Your task to perform on an android device: uninstall "LinkedIn" Image 0: 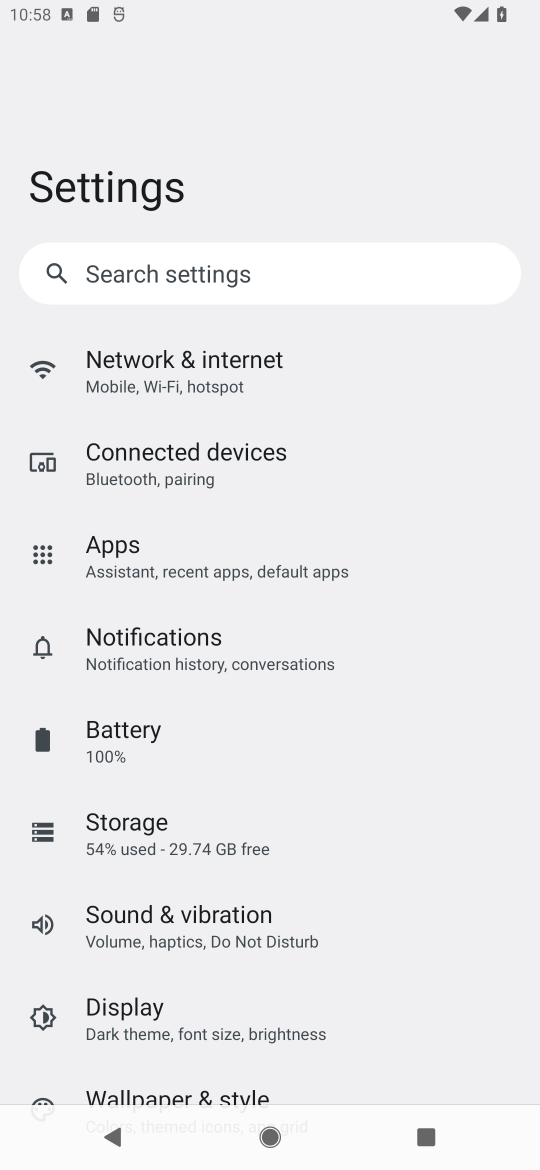
Step 0: press home button
Your task to perform on an android device: uninstall "LinkedIn" Image 1: 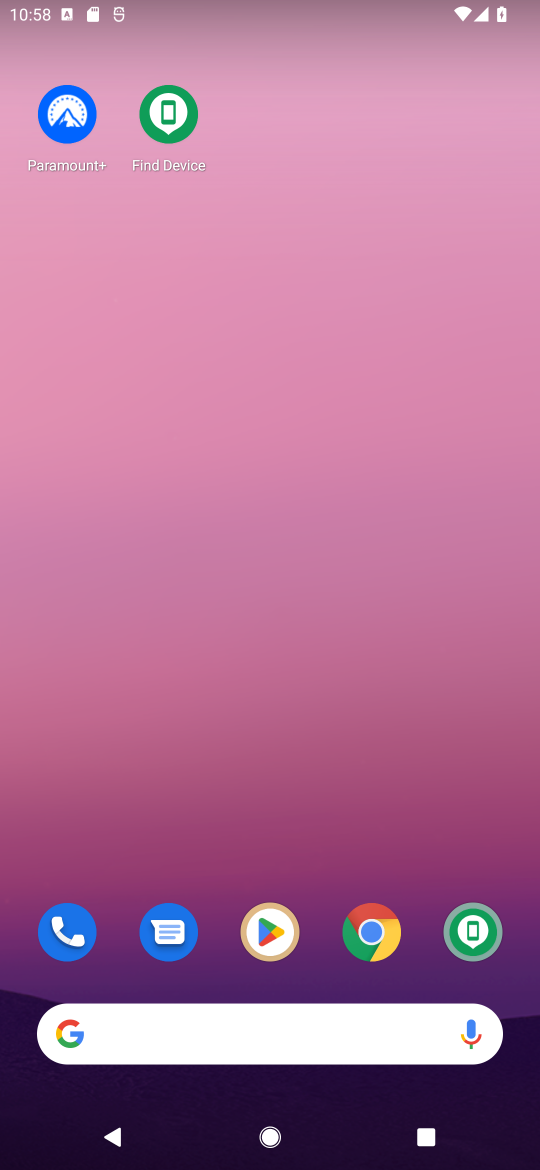
Step 1: click (280, 940)
Your task to perform on an android device: uninstall "LinkedIn" Image 2: 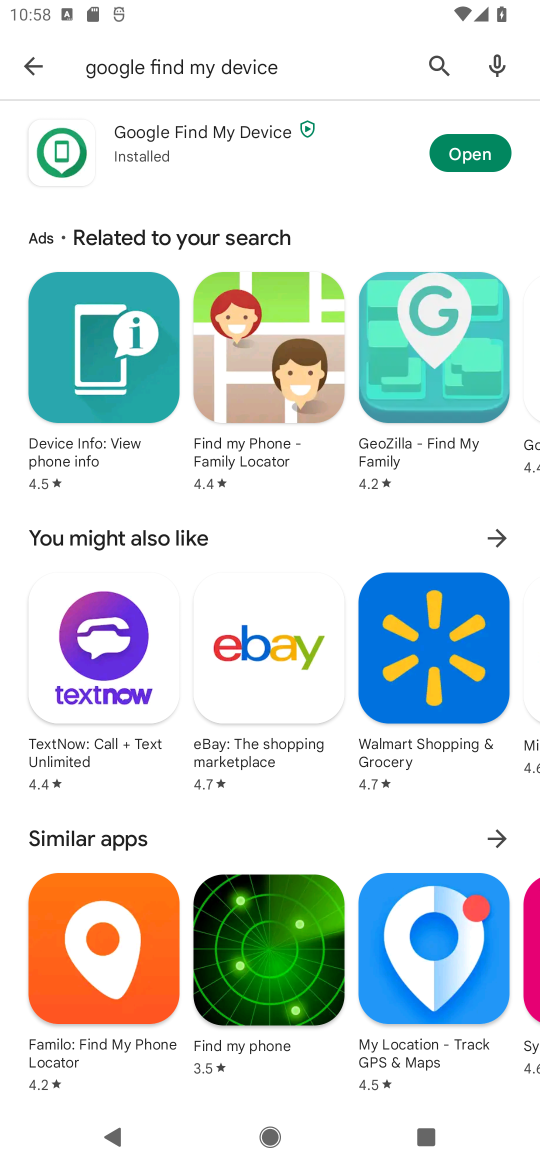
Step 2: click (435, 56)
Your task to perform on an android device: uninstall "LinkedIn" Image 3: 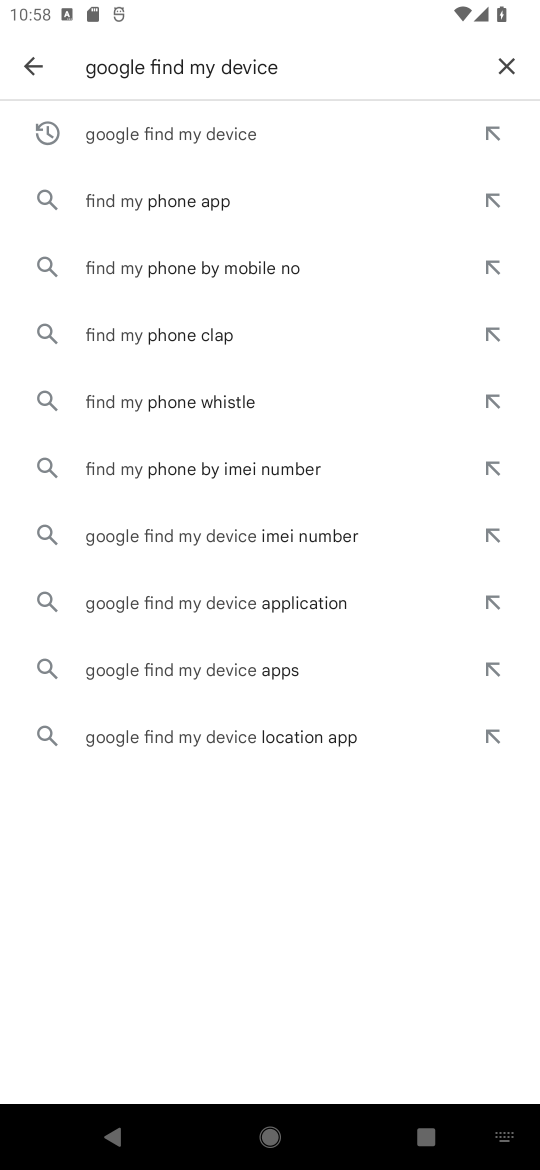
Step 3: click (513, 63)
Your task to perform on an android device: uninstall "LinkedIn" Image 4: 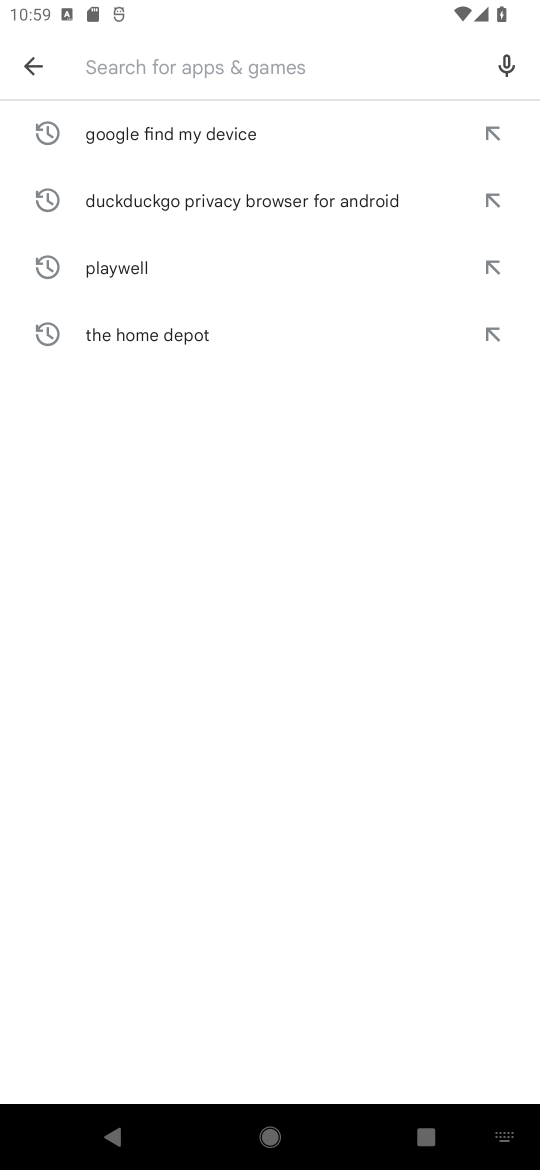
Step 4: click (163, 63)
Your task to perform on an android device: uninstall "LinkedIn" Image 5: 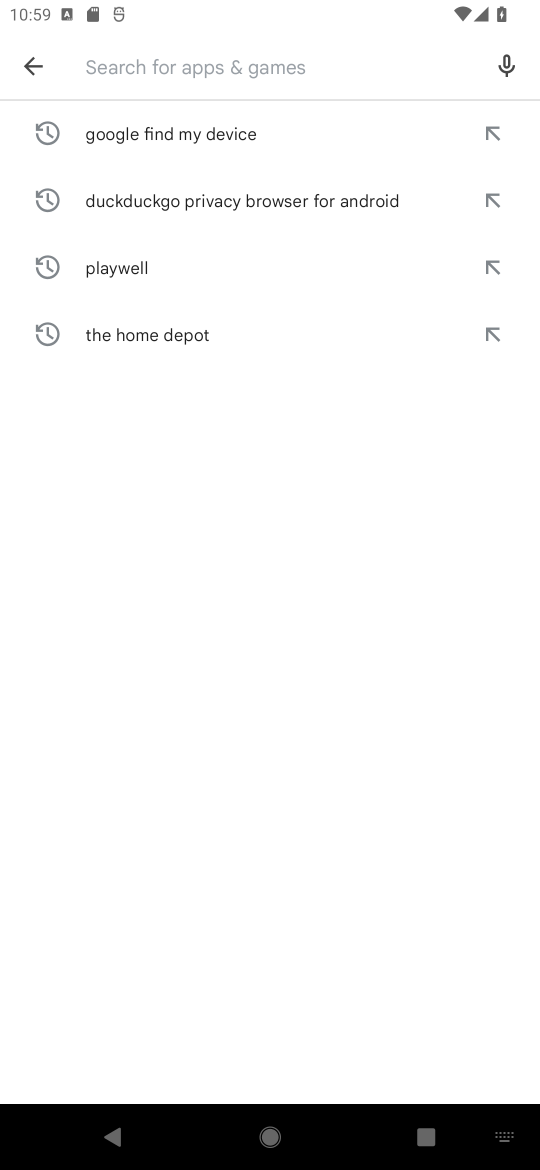
Step 5: type "LinkedIn"
Your task to perform on an android device: uninstall "LinkedIn" Image 6: 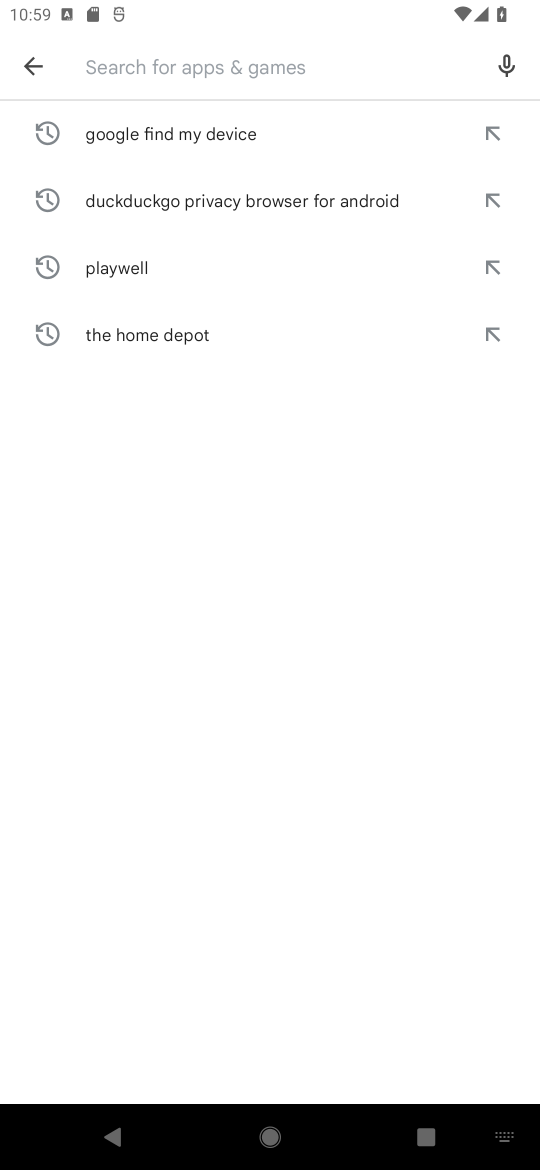
Step 6: click (50, 810)
Your task to perform on an android device: uninstall "LinkedIn" Image 7: 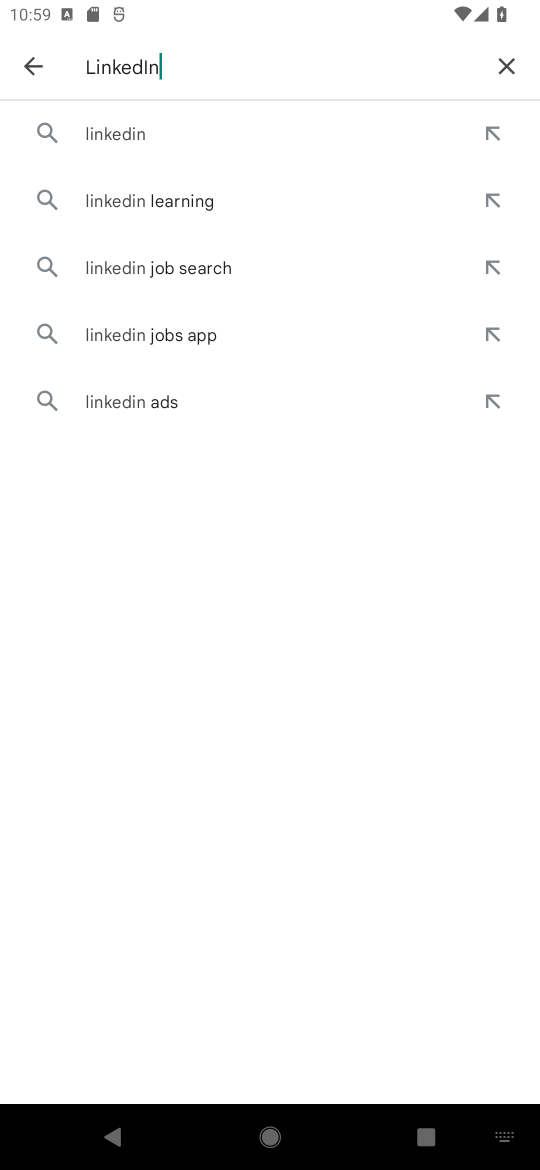
Step 7: click (118, 117)
Your task to perform on an android device: uninstall "LinkedIn" Image 8: 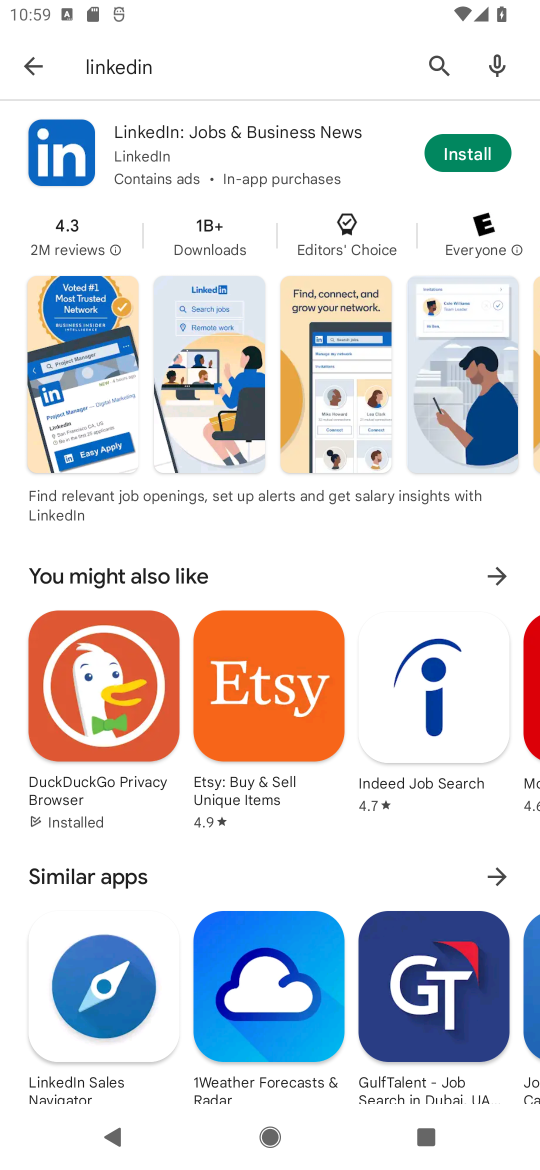
Step 8: task complete